Your task to perform on an android device: check google app version Image 0: 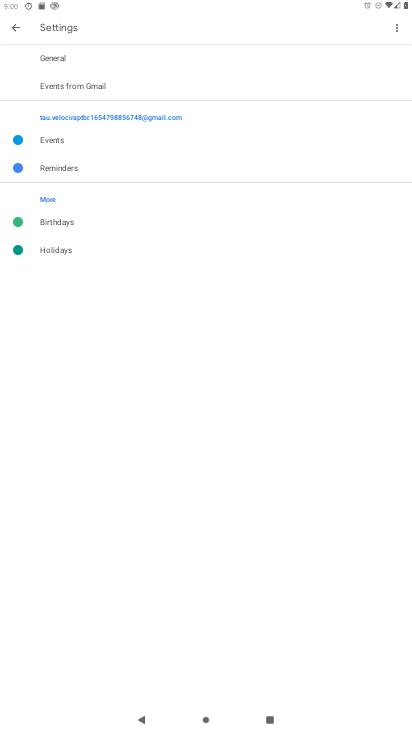
Step 0: press home button
Your task to perform on an android device: check google app version Image 1: 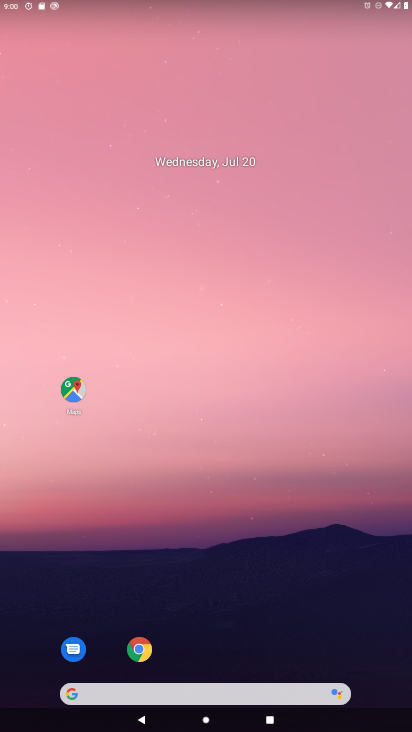
Step 1: drag from (200, 690) to (240, 263)
Your task to perform on an android device: check google app version Image 2: 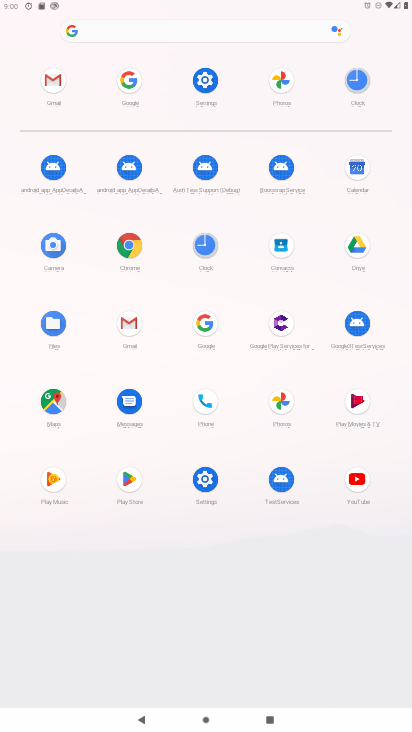
Step 2: click (204, 322)
Your task to perform on an android device: check google app version Image 3: 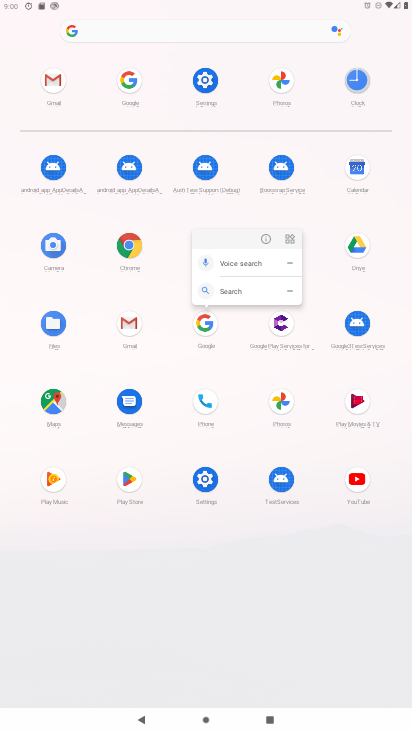
Step 3: click (264, 239)
Your task to perform on an android device: check google app version Image 4: 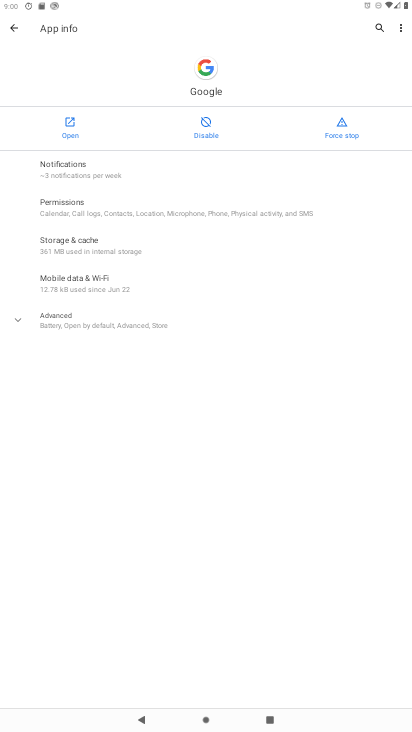
Step 4: click (69, 327)
Your task to perform on an android device: check google app version Image 5: 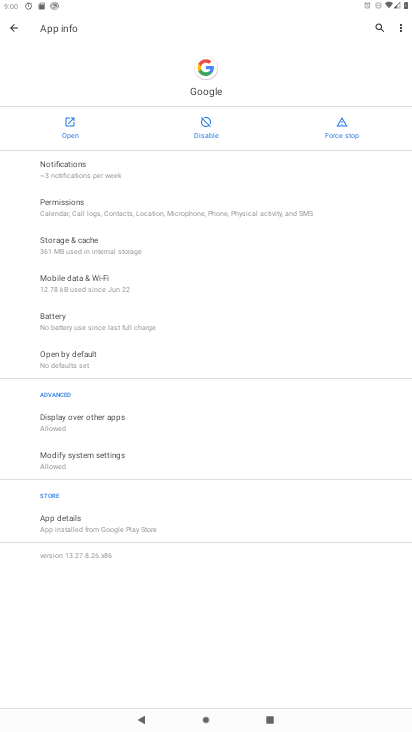
Step 5: task complete